Your task to perform on an android device: Go to calendar. Show me events next week Image 0: 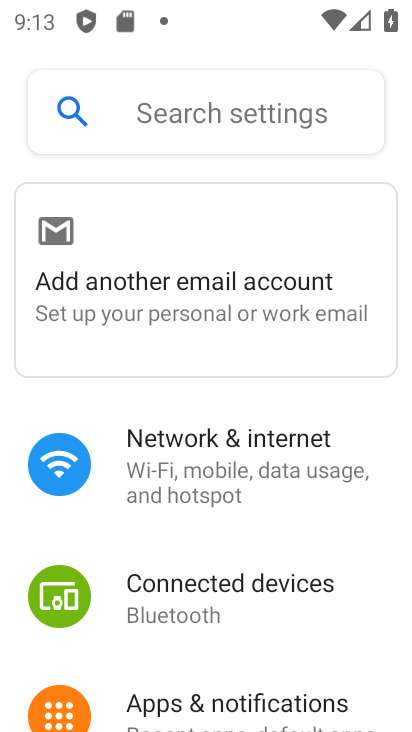
Step 0: press home button
Your task to perform on an android device: Go to calendar. Show me events next week Image 1: 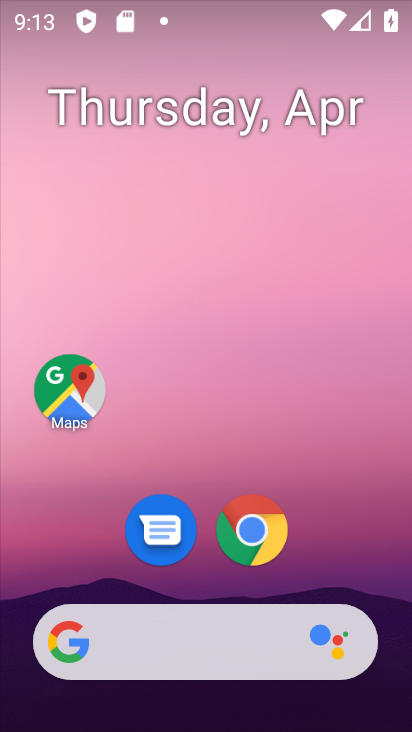
Step 1: drag from (360, 580) to (287, 44)
Your task to perform on an android device: Go to calendar. Show me events next week Image 2: 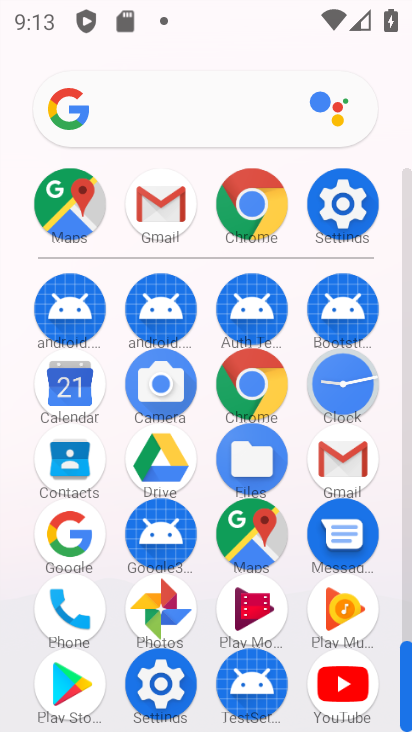
Step 2: drag from (298, 642) to (320, 375)
Your task to perform on an android device: Go to calendar. Show me events next week Image 3: 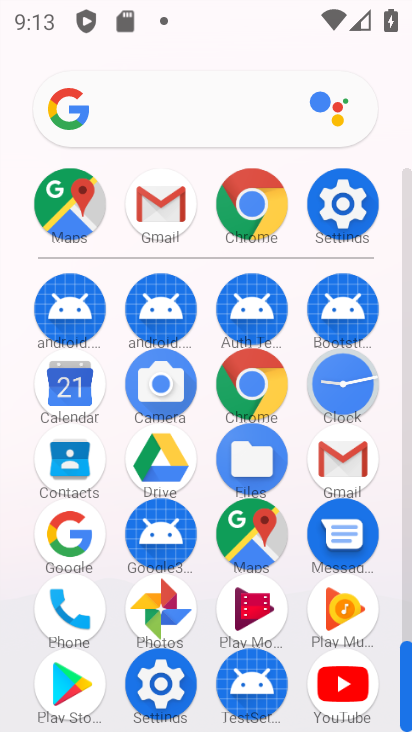
Step 3: click (70, 366)
Your task to perform on an android device: Go to calendar. Show me events next week Image 4: 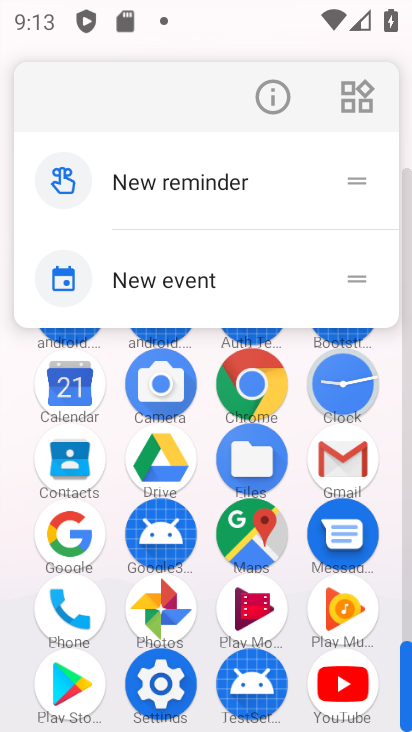
Step 4: click (74, 376)
Your task to perform on an android device: Go to calendar. Show me events next week Image 5: 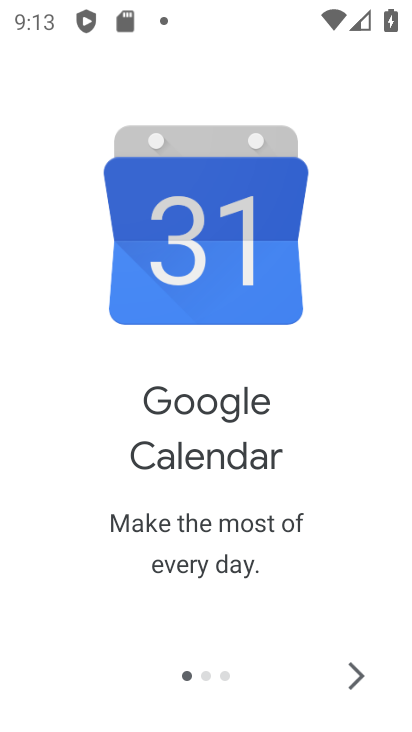
Step 5: click (360, 665)
Your task to perform on an android device: Go to calendar. Show me events next week Image 6: 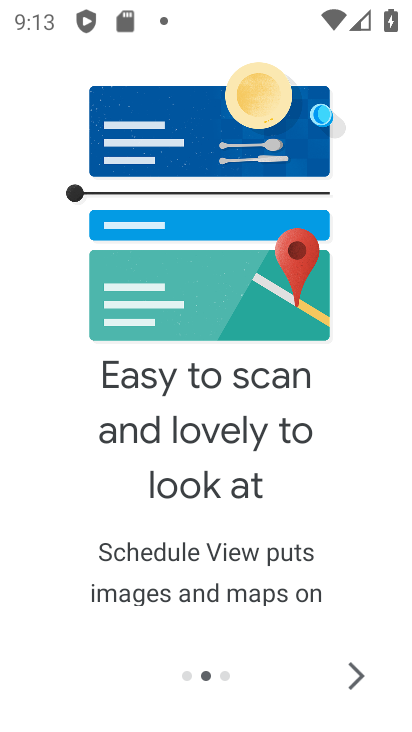
Step 6: click (360, 665)
Your task to perform on an android device: Go to calendar. Show me events next week Image 7: 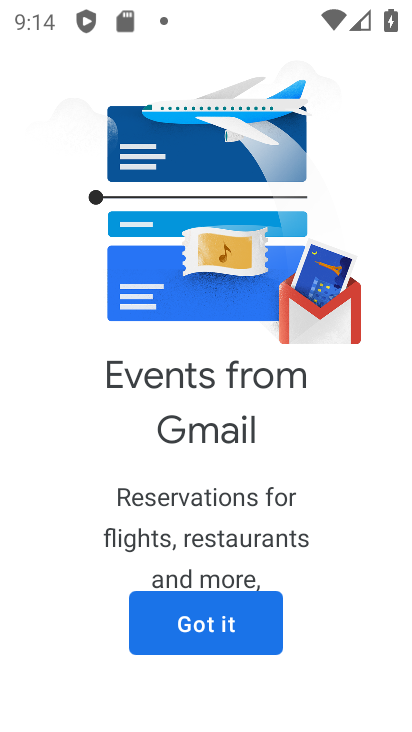
Step 7: click (241, 628)
Your task to perform on an android device: Go to calendar. Show me events next week Image 8: 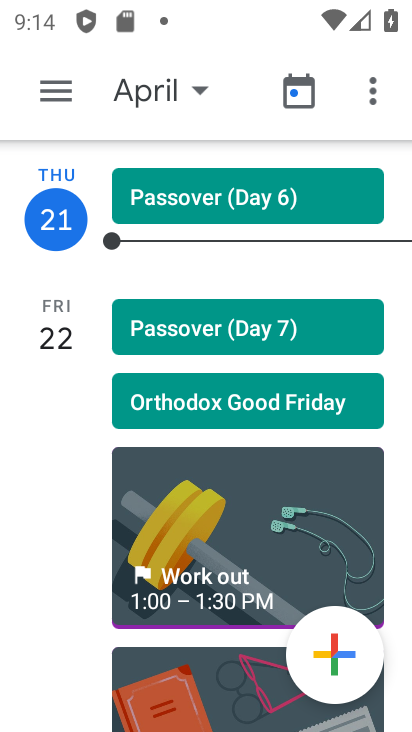
Step 8: click (157, 92)
Your task to perform on an android device: Go to calendar. Show me events next week Image 9: 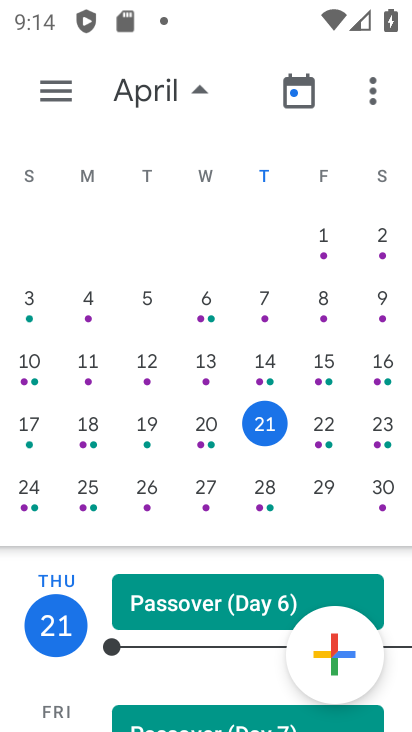
Step 9: click (317, 433)
Your task to perform on an android device: Go to calendar. Show me events next week Image 10: 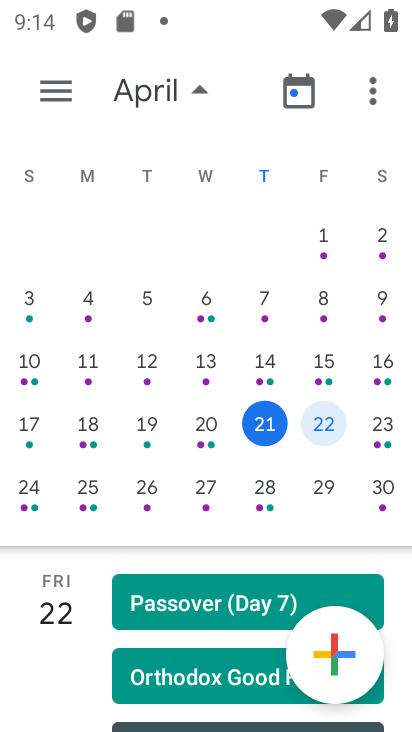
Step 10: click (206, 489)
Your task to perform on an android device: Go to calendar. Show me events next week Image 11: 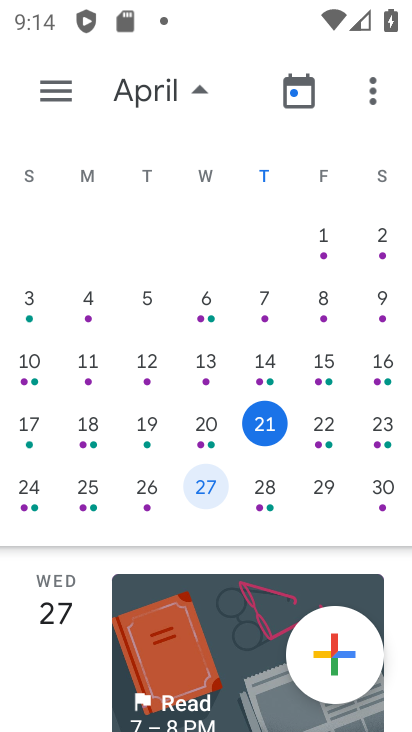
Step 11: click (328, 656)
Your task to perform on an android device: Go to calendar. Show me events next week Image 12: 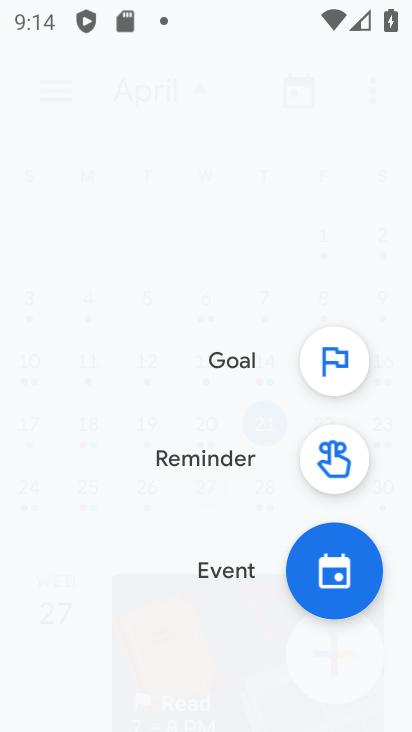
Step 12: click (213, 570)
Your task to perform on an android device: Go to calendar. Show me events next week Image 13: 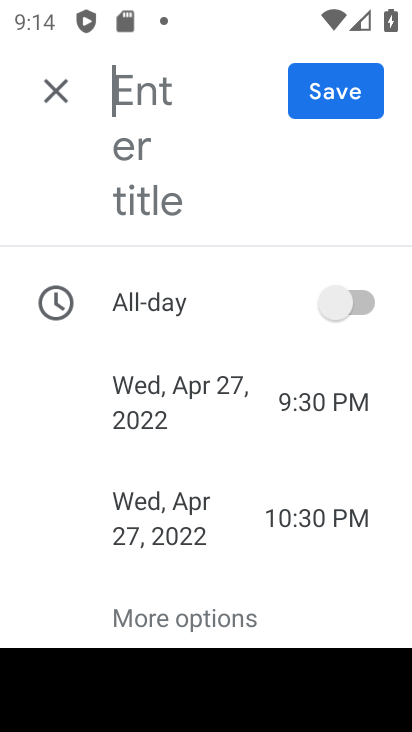
Step 13: type "PTO meet"
Your task to perform on an android device: Go to calendar. Show me events next week Image 14: 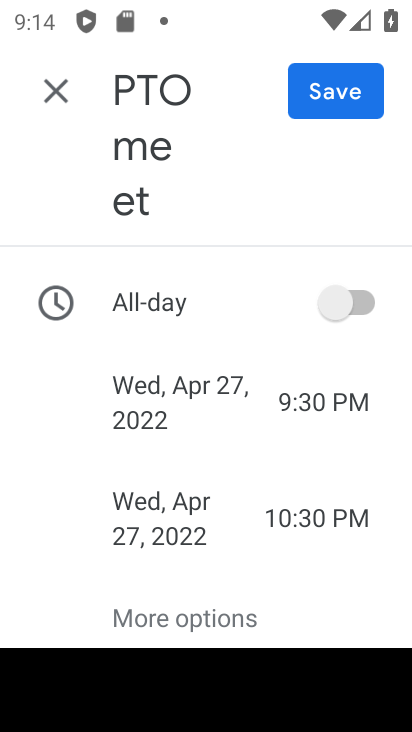
Step 14: click (326, 101)
Your task to perform on an android device: Go to calendar. Show me events next week Image 15: 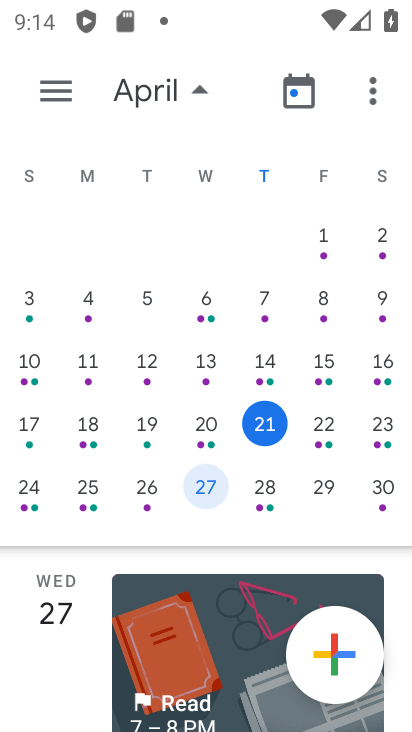
Step 15: task complete